Your task to perform on an android device: Go to accessibility settings Image 0: 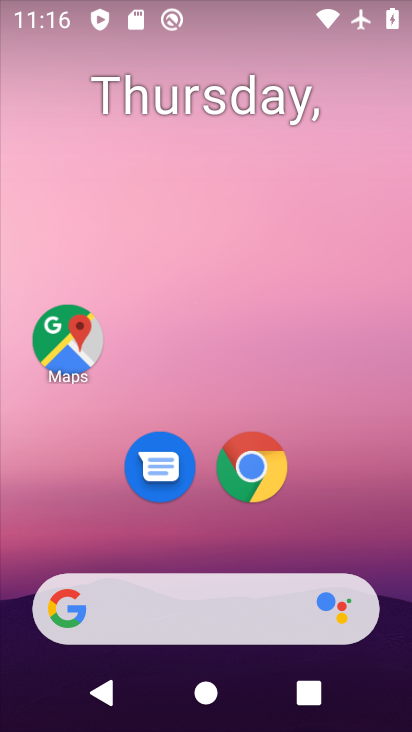
Step 0: drag from (375, 565) to (397, 29)
Your task to perform on an android device: Go to accessibility settings Image 1: 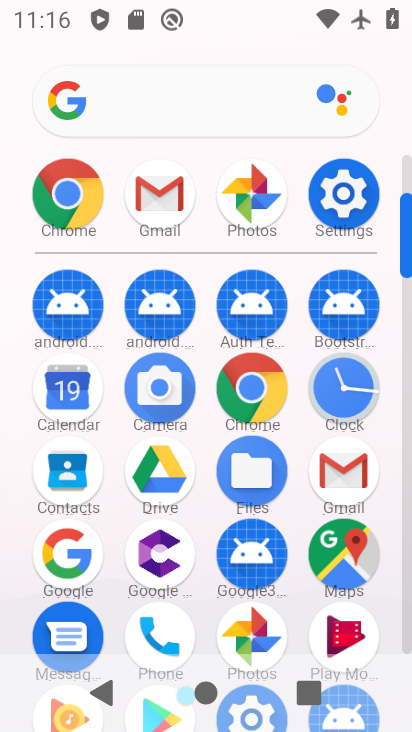
Step 1: click (341, 206)
Your task to perform on an android device: Go to accessibility settings Image 2: 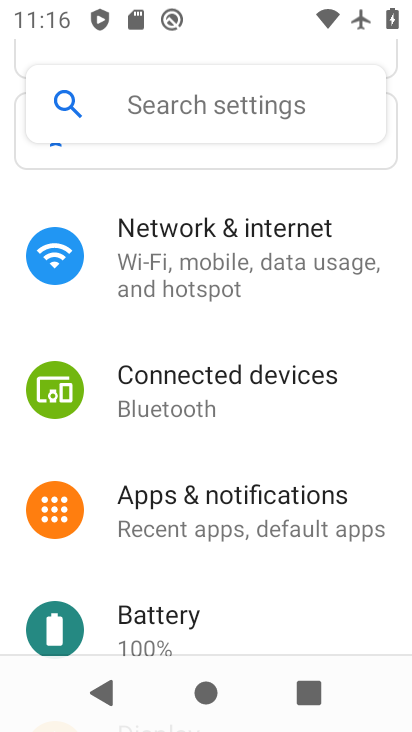
Step 2: drag from (350, 552) to (344, 61)
Your task to perform on an android device: Go to accessibility settings Image 3: 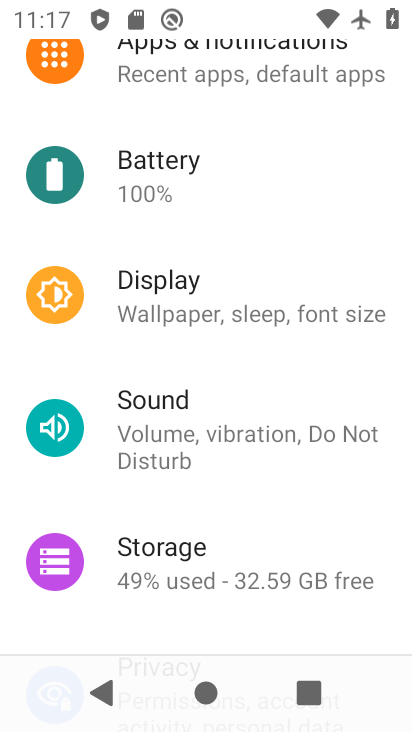
Step 3: drag from (255, 518) to (271, 69)
Your task to perform on an android device: Go to accessibility settings Image 4: 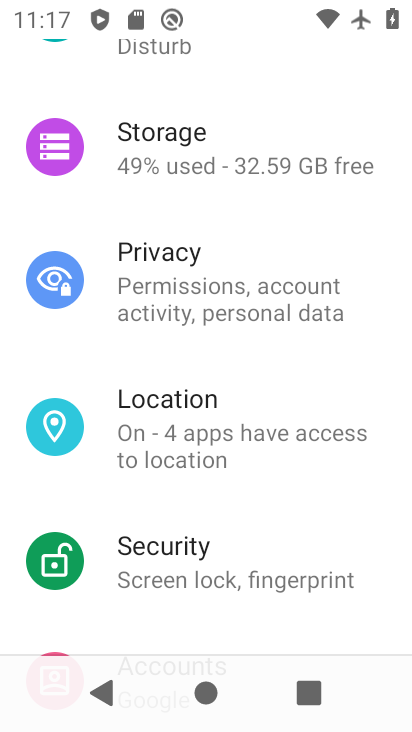
Step 4: drag from (315, 510) to (325, 23)
Your task to perform on an android device: Go to accessibility settings Image 5: 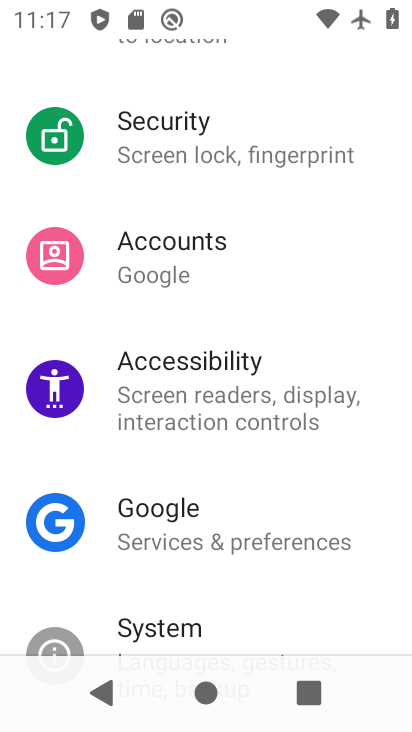
Step 5: click (177, 379)
Your task to perform on an android device: Go to accessibility settings Image 6: 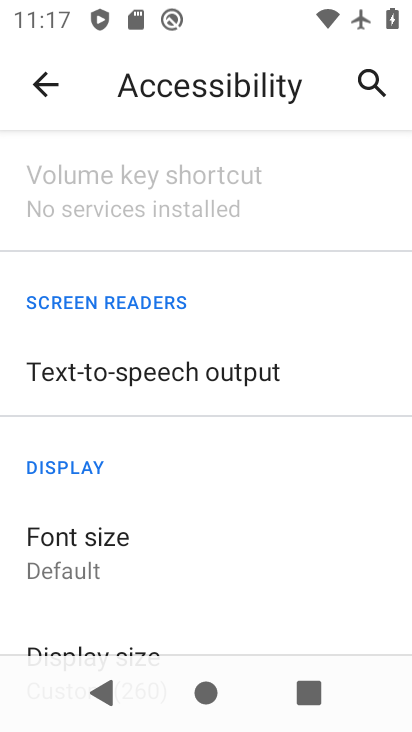
Step 6: task complete